Your task to perform on an android device: Find coffee shops on Maps Image 0: 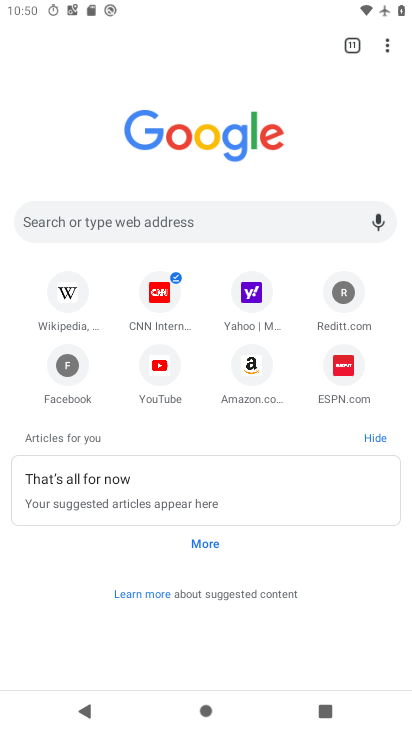
Step 0: press home button
Your task to perform on an android device: Find coffee shops on Maps Image 1: 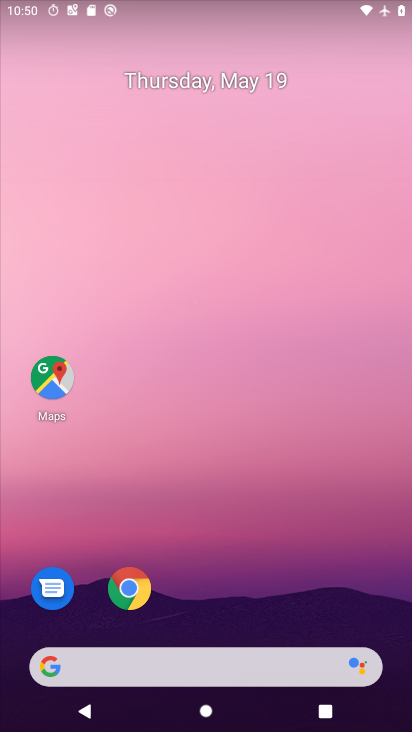
Step 1: click (46, 391)
Your task to perform on an android device: Find coffee shops on Maps Image 2: 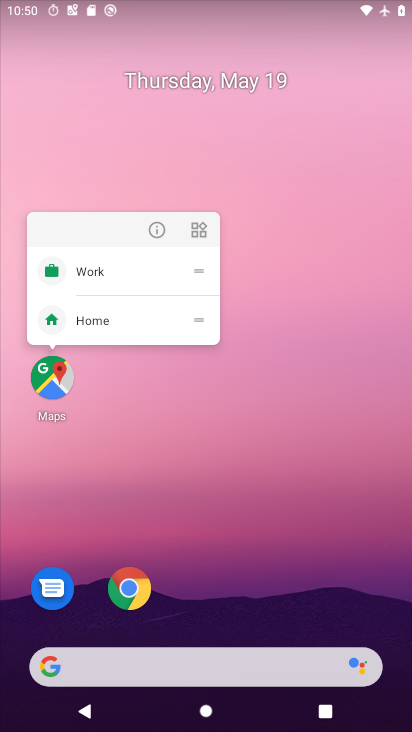
Step 2: click (56, 393)
Your task to perform on an android device: Find coffee shops on Maps Image 3: 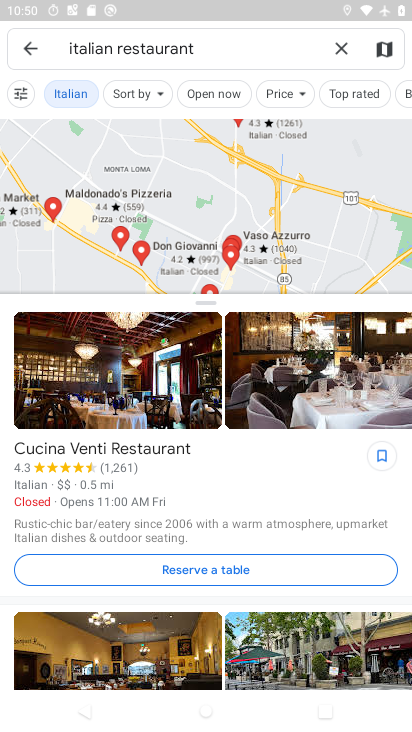
Step 3: click (341, 48)
Your task to perform on an android device: Find coffee shops on Maps Image 4: 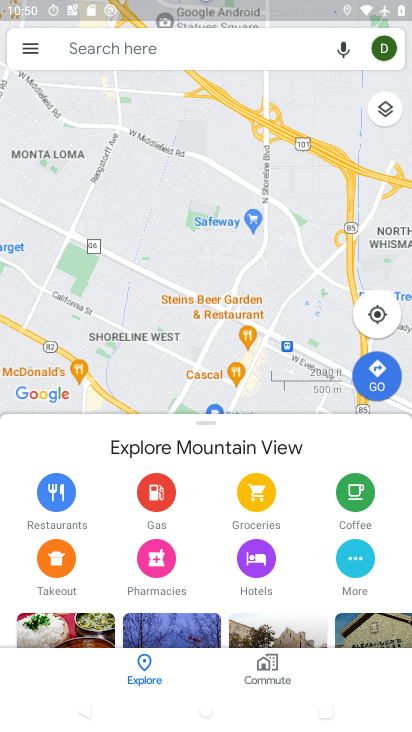
Step 4: click (190, 47)
Your task to perform on an android device: Find coffee shops on Maps Image 5: 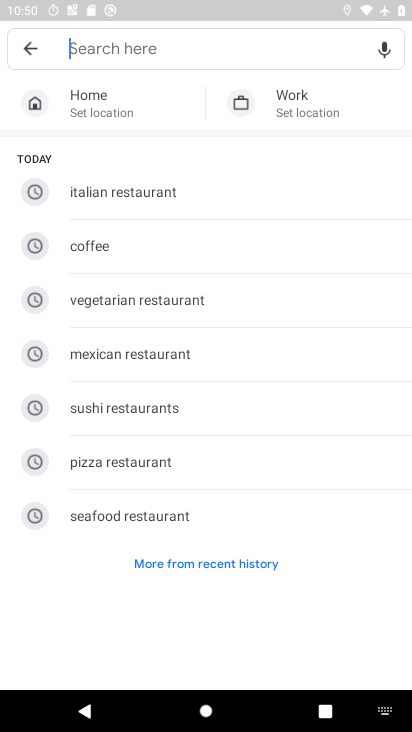
Step 5: click (119, 250)
Your task to perform on an android device: Find coffee shops on Maps Image 6: 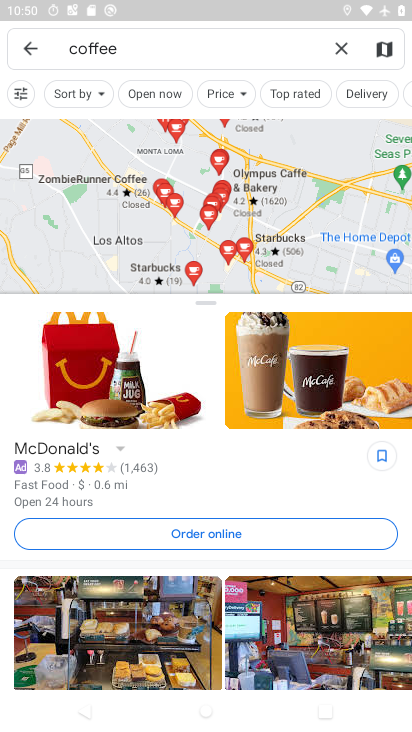
Step 6: task complete